Your task to perform on an android device: delete browsing data in the chrome app Image 0: 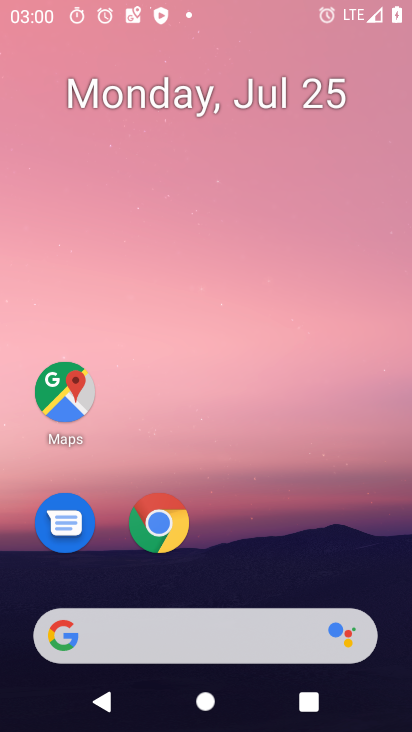
Step 0: press home button
Your task to perform on an android device: delete browsing data in the chrome app Image 1: 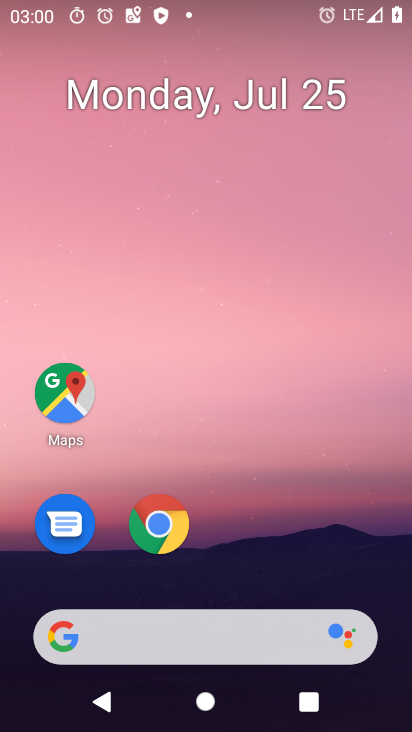
Step 1: drag from (258, 566) to (356, 27)
Your task to perform on an android device: delete browsing data in the chrome app Image 2: 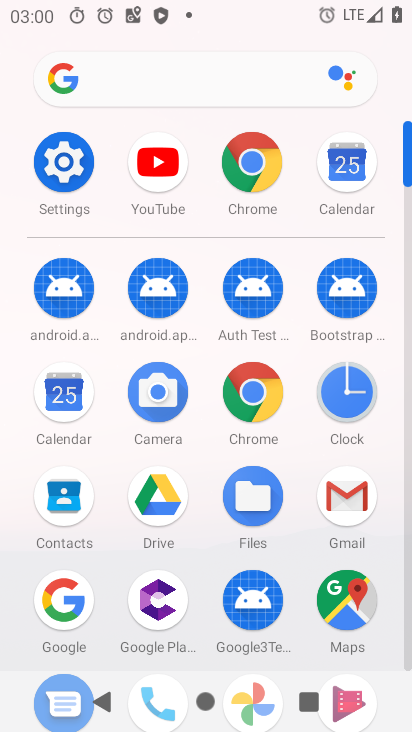
Step 2: click (265, 166)
Your task to perform on an android device: delete browsing data in the chrome app Image 3: 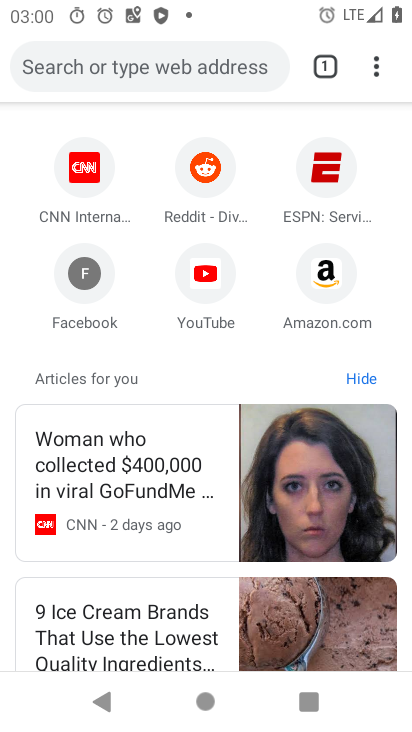
Step 3: drag from (377, 71) to (158, 561)
Your task to perform on an android device: delete browsing data in the chrome app Image 4: 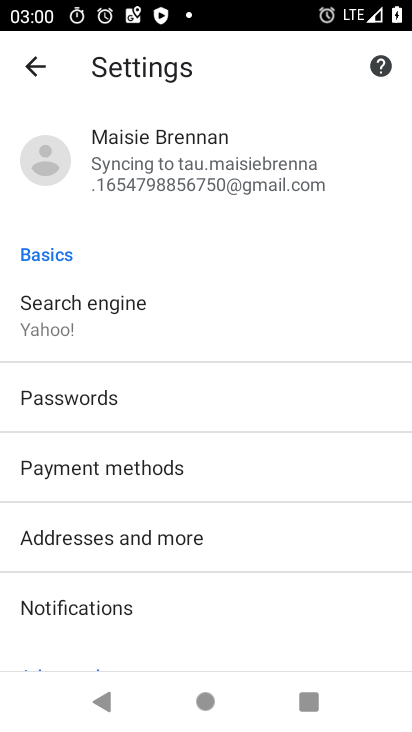
Step 4: click (33, 63)
Your task to perform on an android device: delete browsing data in the chrome app Image 5: 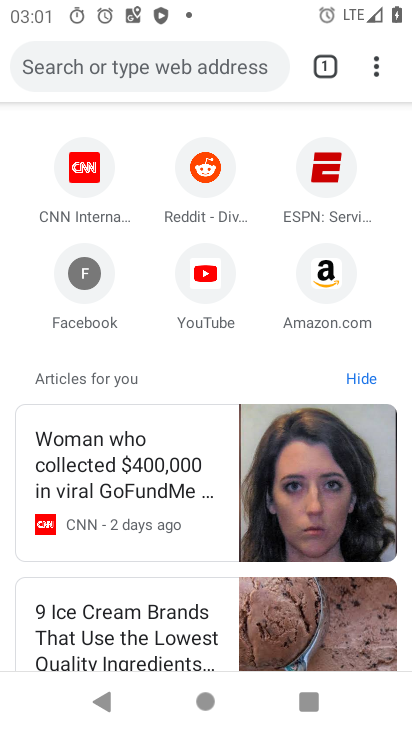
Step 5: drag from (382, 73) to (154, 562)
Your task to perform on an android device: delete browsing data in the chrome app Image 6: 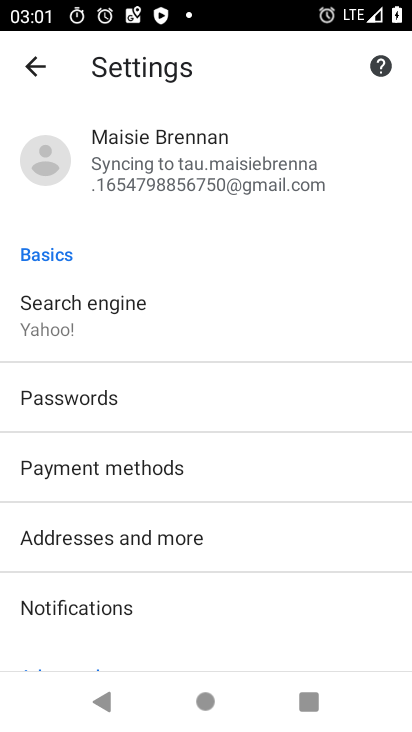
Step 6: drag from (291, 595) to (277, 206)
Your task to perform on an android device: delete browsing data in the chrome app Image 7: 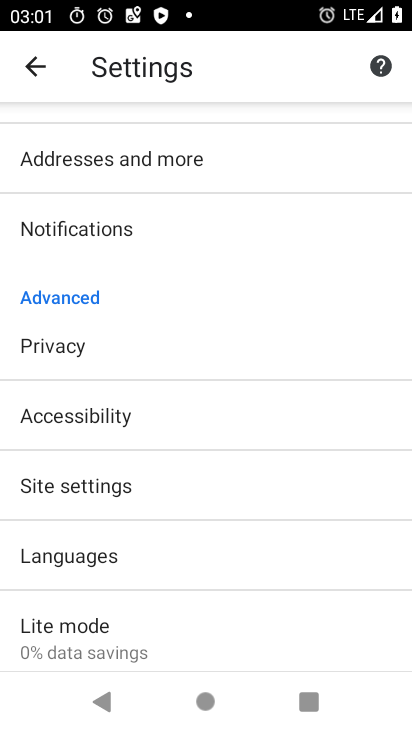
Step 7: click (43, 352)
Your task to perform on an android device: delete browsing data in the chrome app Image 8: 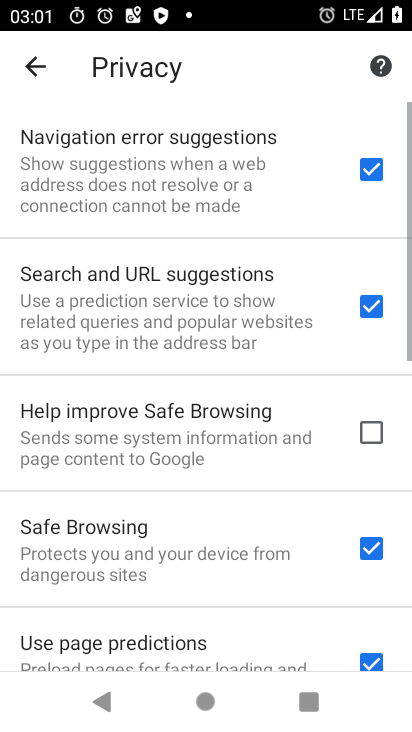
Step 8: drag from (264, 616) to (255, 57)
Your task to perform on an android device: delete browsing data in the chrome app Image 9: 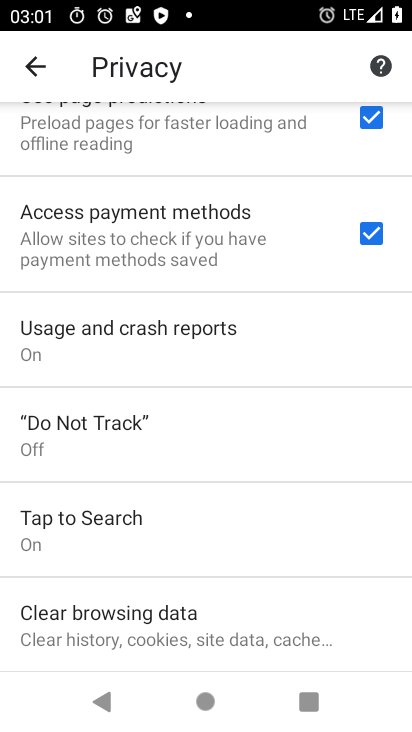
Step 9: click (163, 636)
Your task to perform on an android device: delete browsing data in the chrome app Image 10: 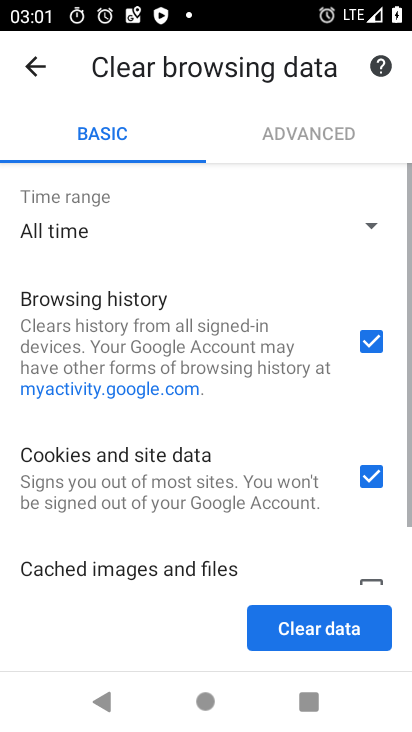
Step 10: drag from (317, 489) to (345, 219)
Your task to perform on an android device: delete browsing data in the chrome app Image 11: 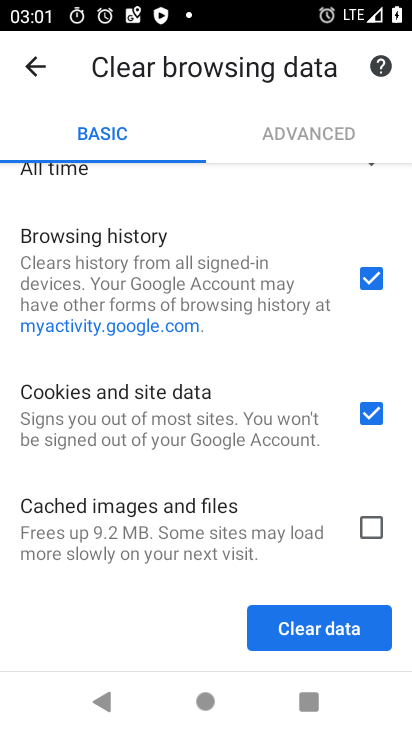
Step 11: click (361, 529)
Your task to perform on an android device: delete browsing data in the chrome app Image 12: 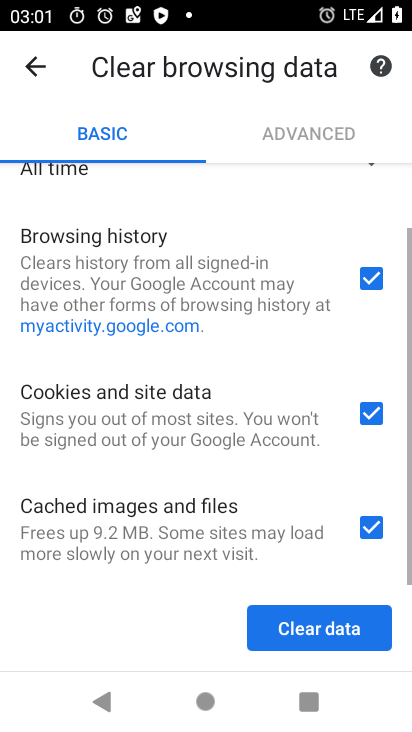
Step 12: click (303, 619)
Your task to perform on an android device: delete browsing data in the chrome app Image 13: 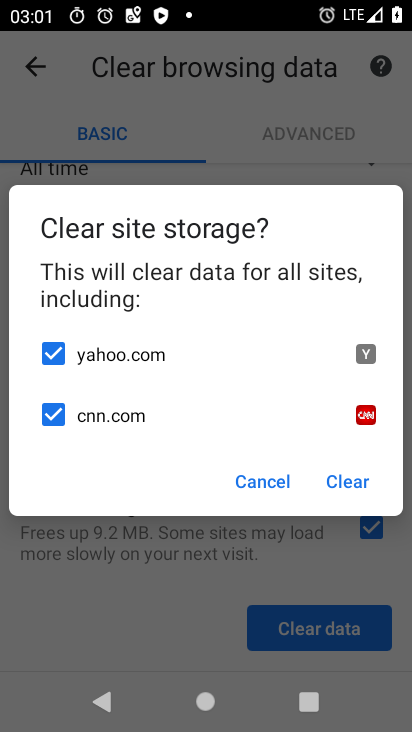
Step 13: click (350, 484)
Your task to perform on an android device: delete browsing data in the chrome app Image 14: 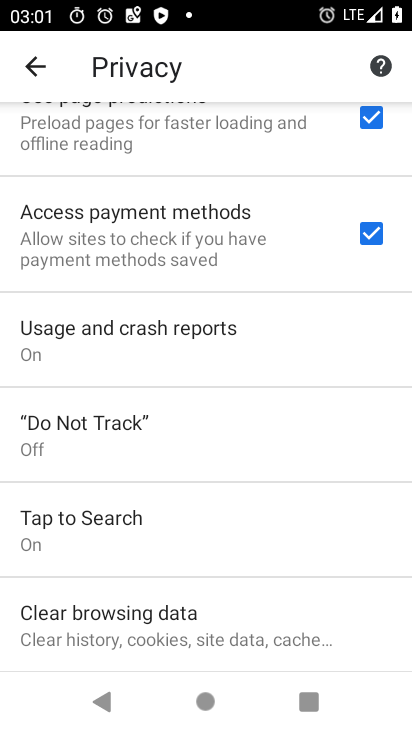
Step 14: task complete